Your task to perform on an android device: Check my email inbox Image 0: 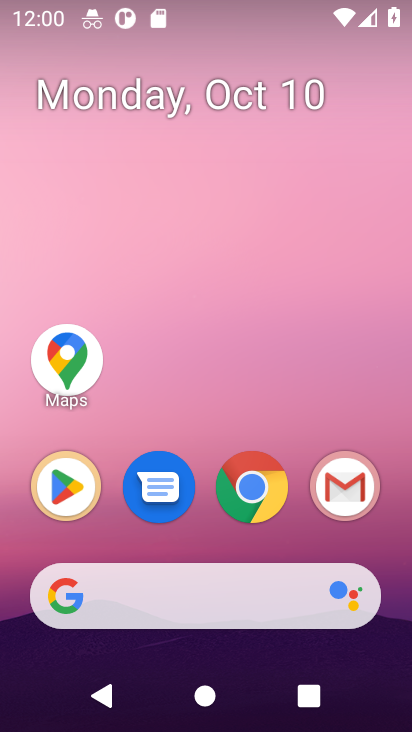
Step 0: click (336, 488)
Your task to perform on an android device: Check my email inbox Image 1: 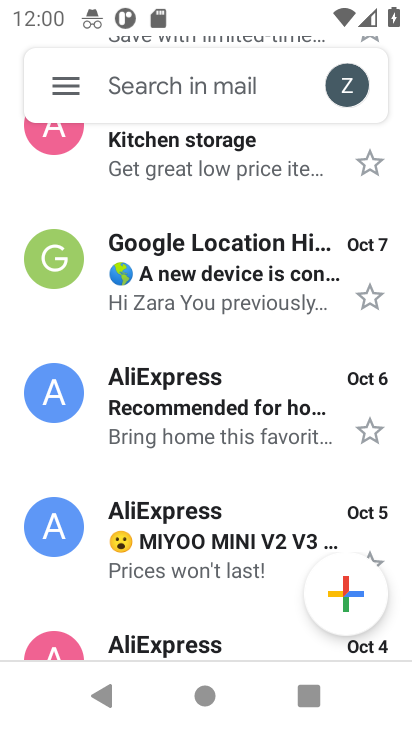
Step 1: click (72, 92)
Your task to perform on an android device: Check my email inbox Image 2: 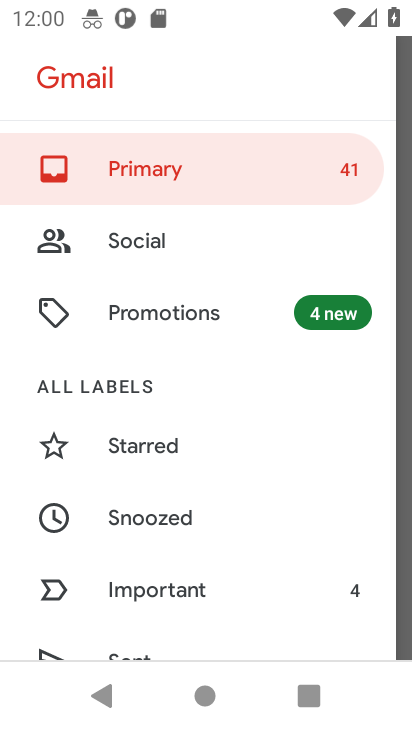
Step 2: click (236, 182)
Your task to perform on an android device: Check my email inbox Image 3: 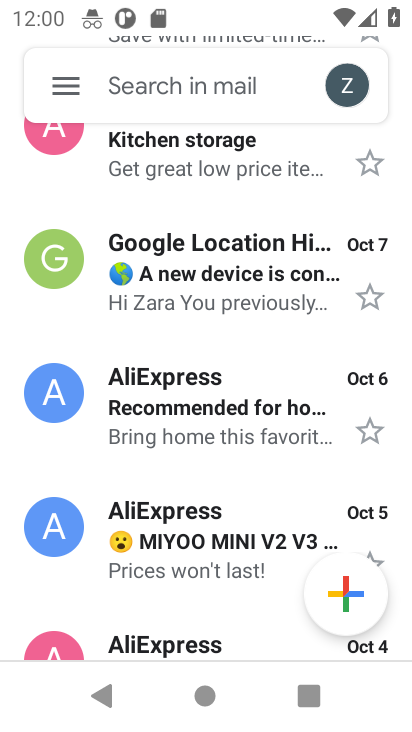
Step 3: drag from (194, 554) to (170, 525)
Your task to perform on an android device: Check my email inbox Image 4: 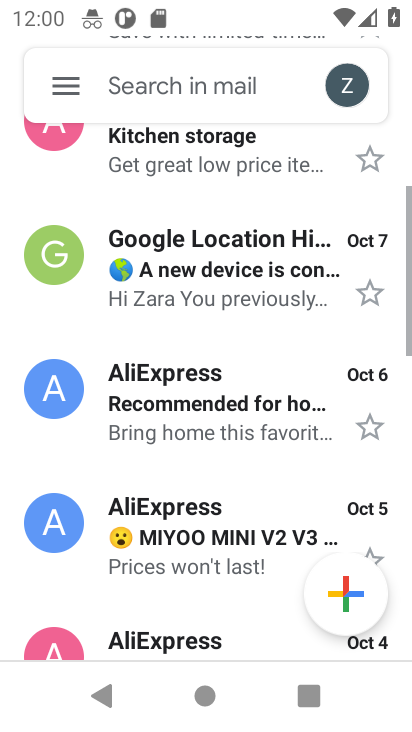
Step 4: drag from (169, 241) to (176, 468)
Your task to perform on an android device: Check my email inbox Image 5: 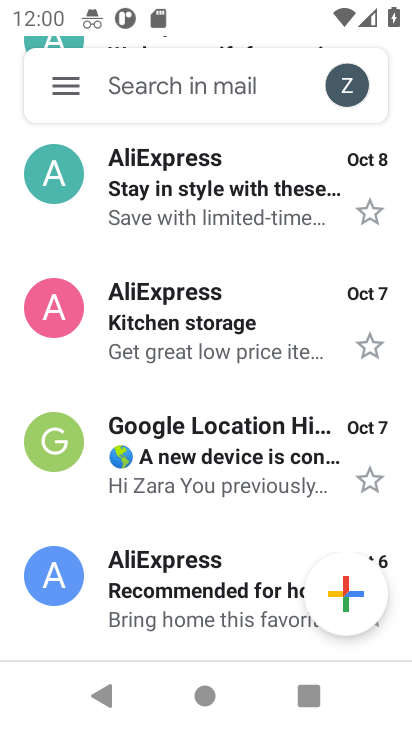
Step 5: drag from (209, 232) to (197, 404)
Your task to perform on an android device: Check my email inbox Image 6: 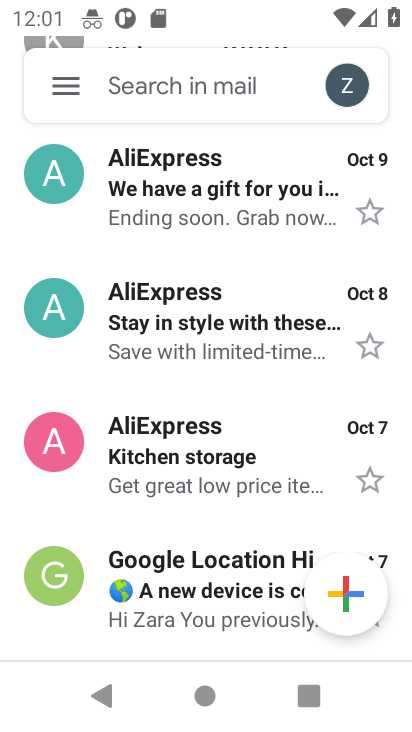
Step 6: drag from (196, 499) to (167, 544)
Your task to perform on an android device: Check my email inbox Image 7: 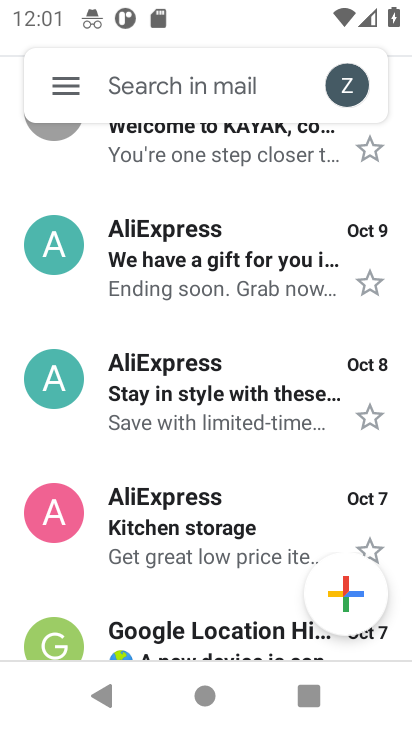
Step 7: drag from (177, 356) to (177, 541)
Your task to perform on an android device: Check my email inbox Image 8: 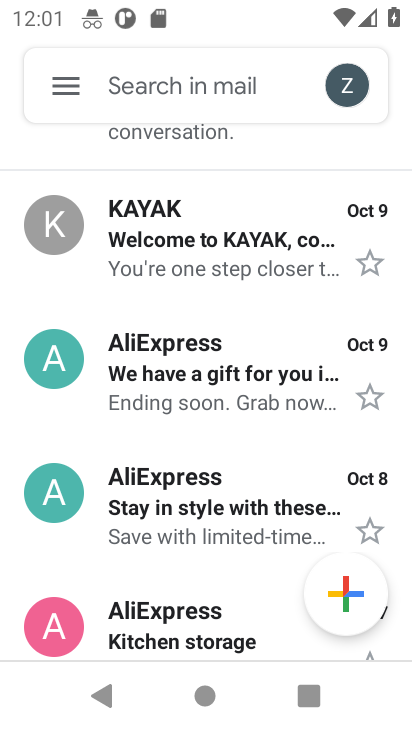
Step 8: drag from (138, 263) to (143, 486)
Your task to perform on an android device: Check my email inbox Image 9: 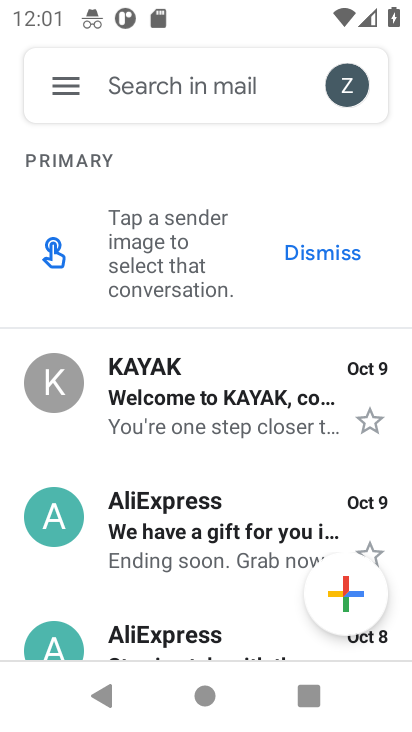
Step 9: drag from (179, 522) to (178, 262)
Your task to perform on an android device: Check my email inbox Image 10: 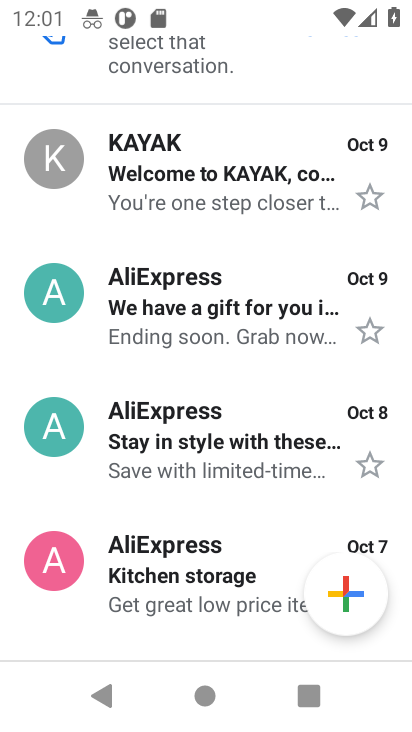
Step 10: drag from (222, 521) to (225, 283)
Your task to perform on an android device: Check my email inbox Image 11: 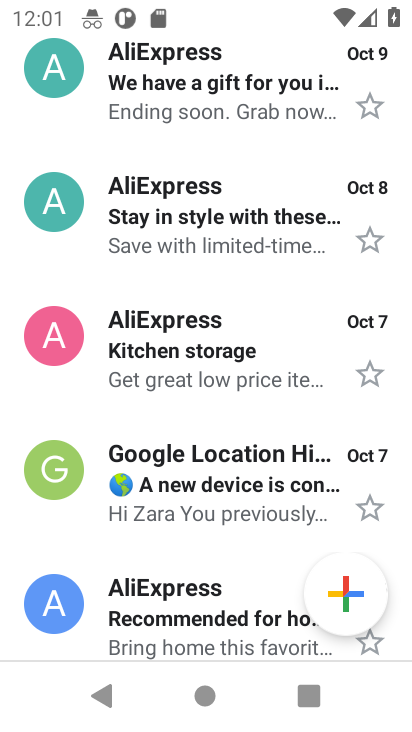
Step 11: click (218, 475)
Your task to perform on an android device: Check my email inbox Image 12: 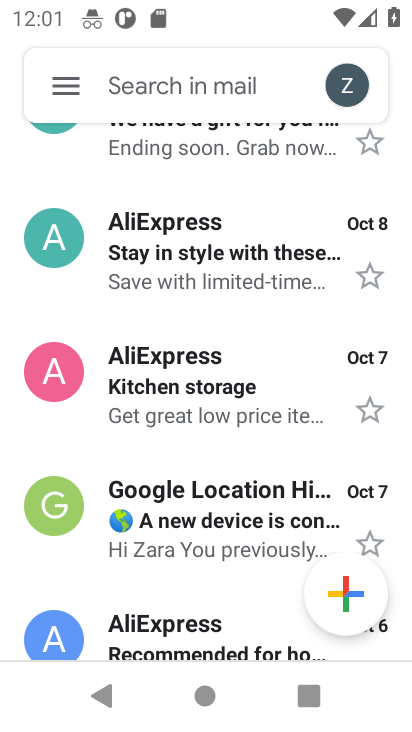
Step 12: task complete